Your task to perform on an android device: Go to Yahoo.com Image 0: 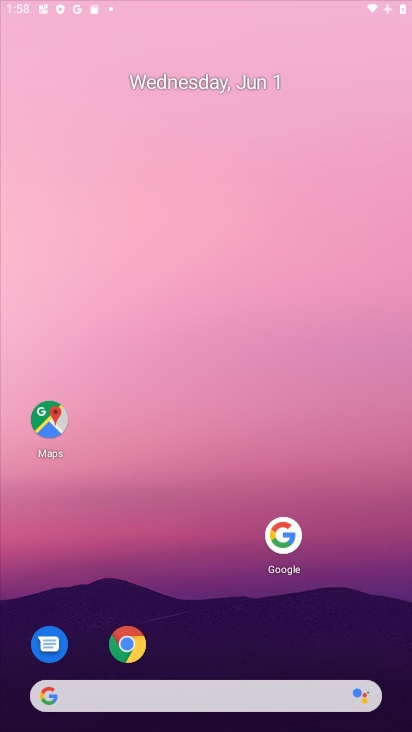
Step 0: press home button
Your task to perform on an android device: Go to Yahoo.com Image 1: 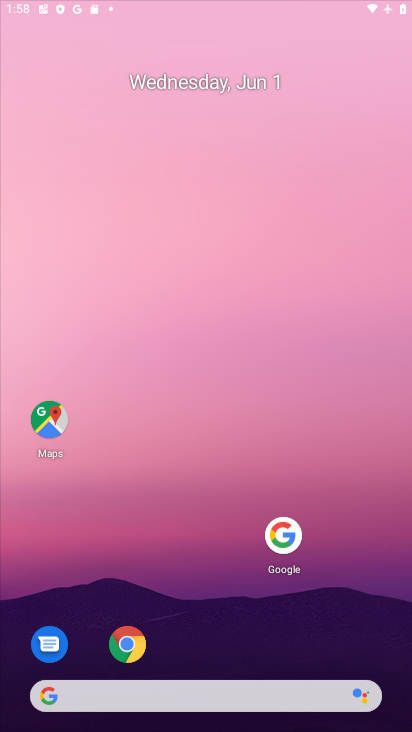
Step 1: click (125, 644)
Your task to perform on an android device: Go to Yahoo.com Image 2: 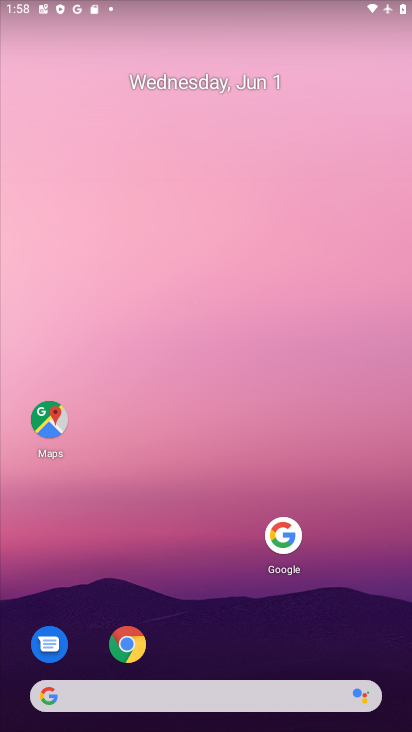
Step 2: click (130, 649)
Your task to perform on an android device: Go to Yahoo.com Image 3: 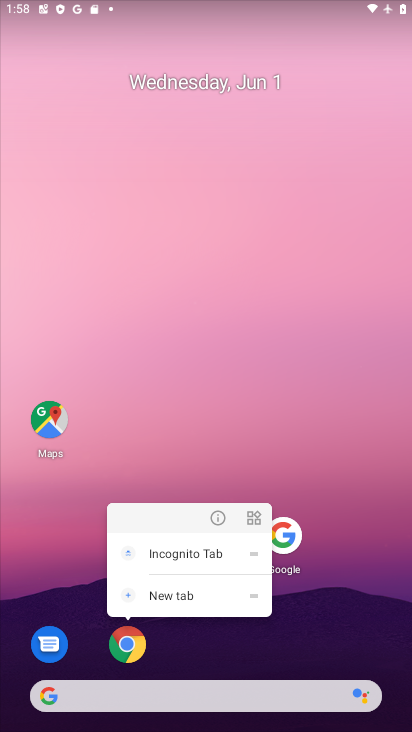
Step 3: click (130, 651)
Your task to perform on an android device: Go to Yahoo.com Image 4: 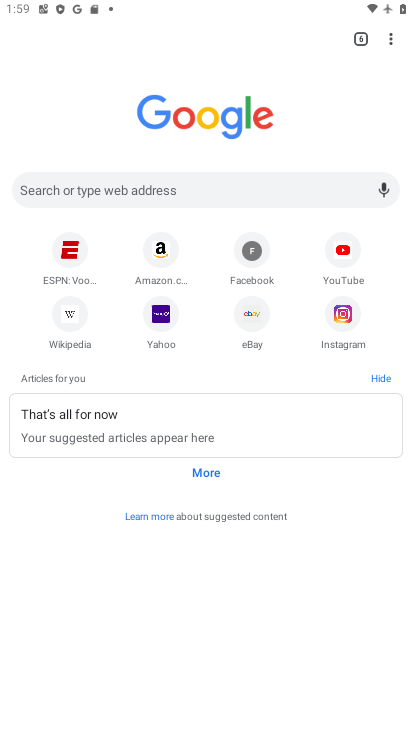
Step 4: click (160, 311)
Your task to perform on an android device: Go to Yahoo.com Image 5: 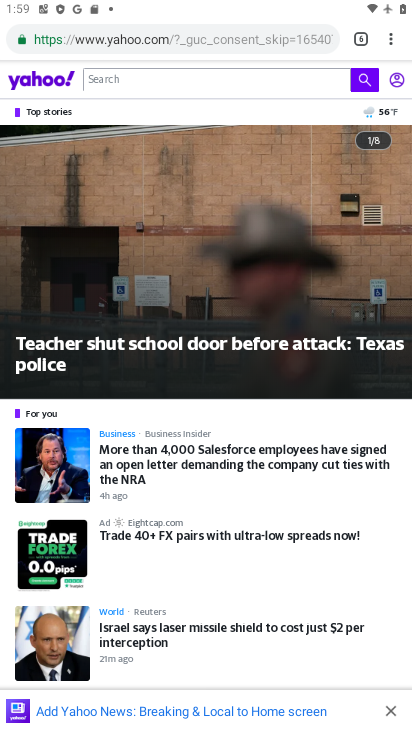
Step 5: task complete